Your task to perform on an android device: check android version Image 0: 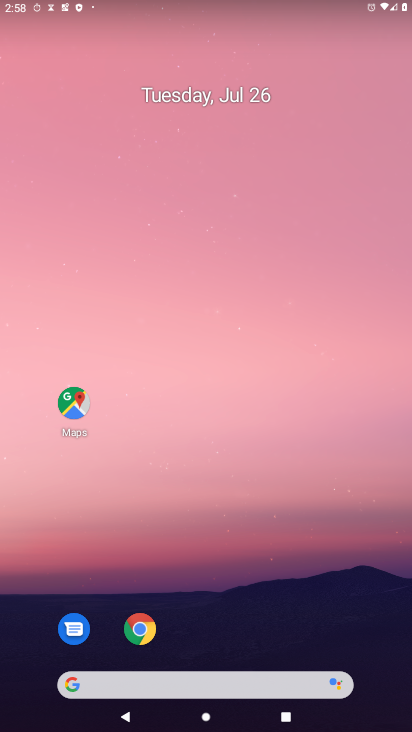
Step 0: drag from (302, 595) to (332, 173)
Your task to perform on an android device: check android version Image 1: 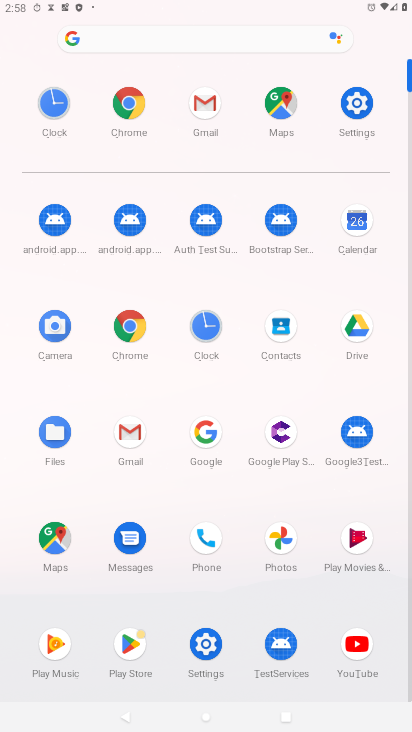
Step 1: click (348, 104)
Your task to perform on an android device: check android version Image 2: 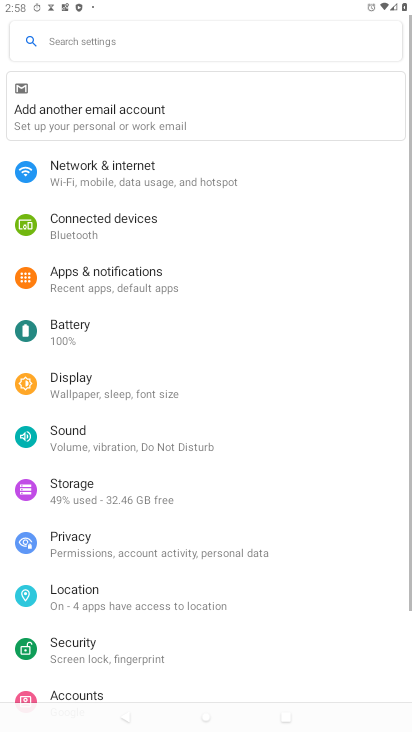
Step 2: drag from (171, 650) to (217, 0)
Your task to perform on an android device: check android version Image 3: 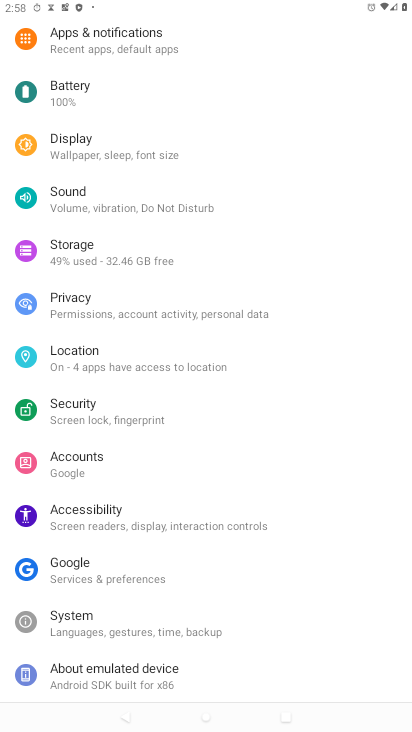
Step 3: click (180, 679)
Your task to perform on an android device: check android version Image 4: 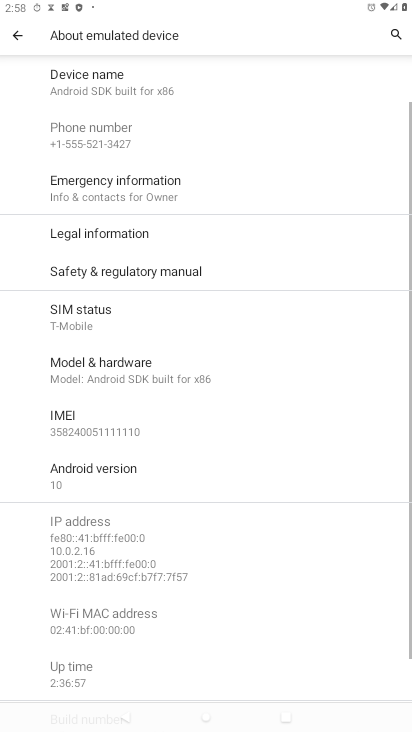
Step 4: click (92, 476)
Your task to perform on an android device: check android version Image 5: 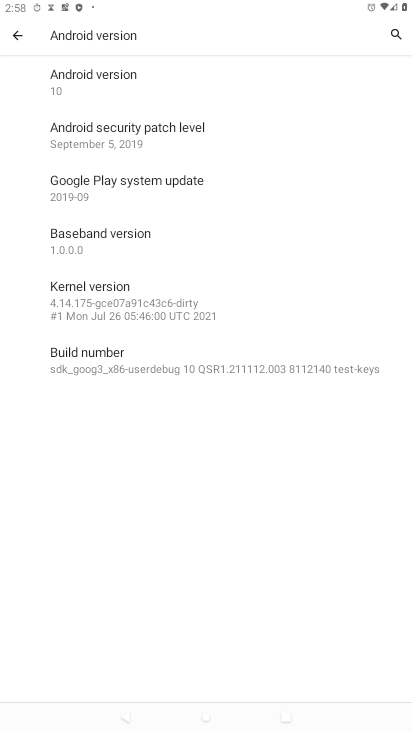
Step 5: task complete